Your task to perform on an android device: delete location history Image 0: 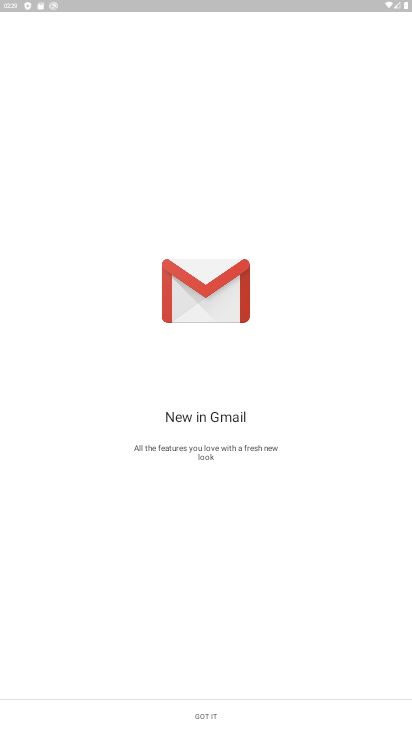
Step 0: press home button
Your task to perform on an android device: delete location history Image 1: 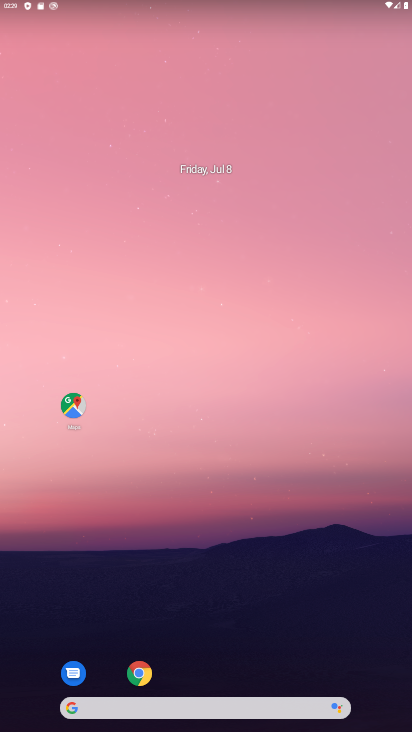
Step 1: click (78, 414)
Your task to perform on an android device: delete location history Image 2: 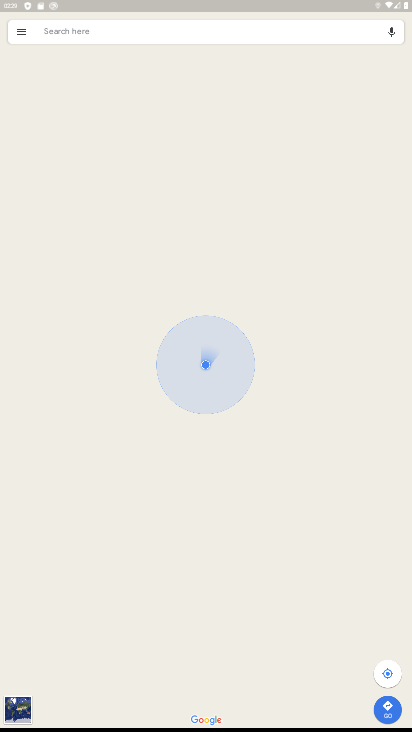
Step 2: click (14, 30)
Your task to perform on an android device: delete location history Image 3: 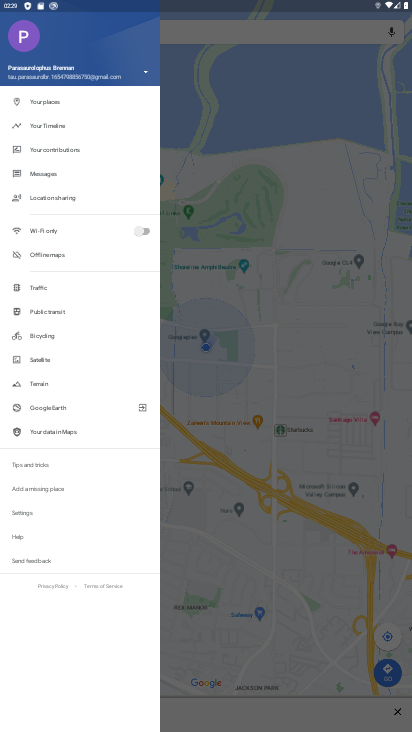
Step 3: click (51, 131)
Your task to perform on an android device: delete location history Image 4: 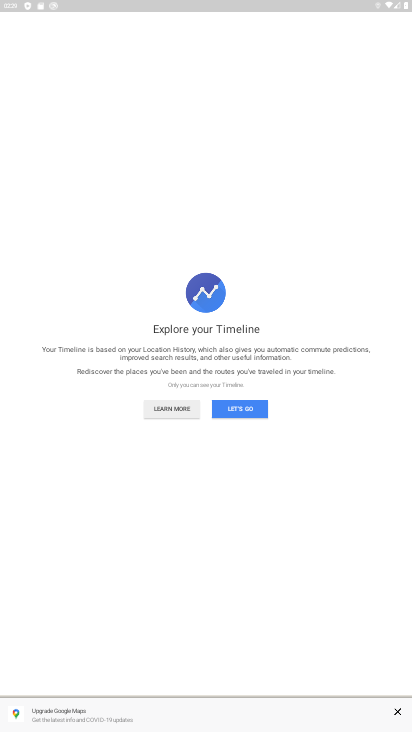
Step 4: click (228, 420)
Your task to perform on an android device: delete location history Image 5: 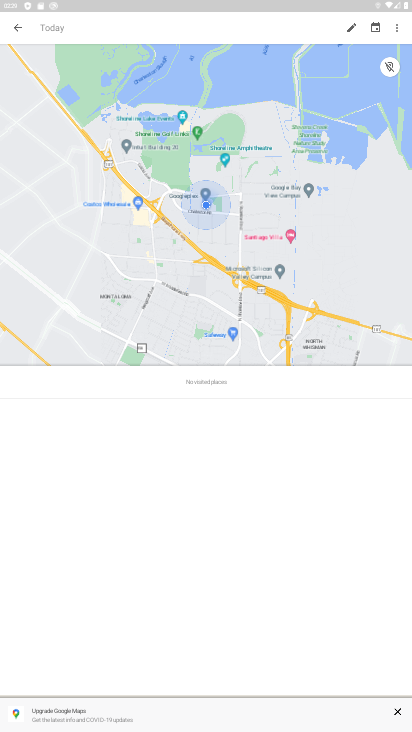
Step 5: click (394, 30)
Your task to perform on an android device: delete location history Image 6: 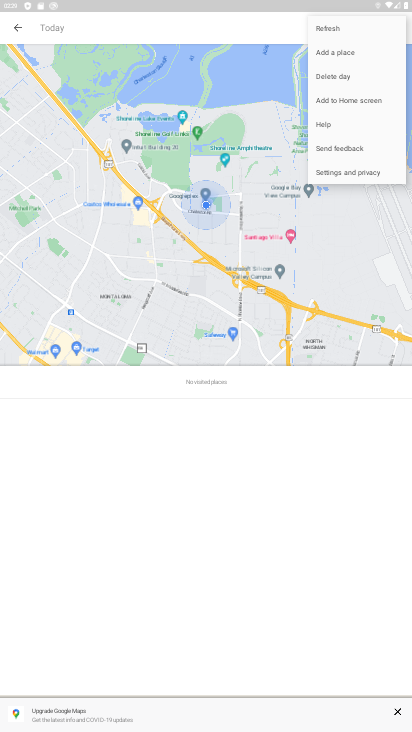
Step 6: click (322, 178)
Your task to perform on an android device: delete location history Image 7: 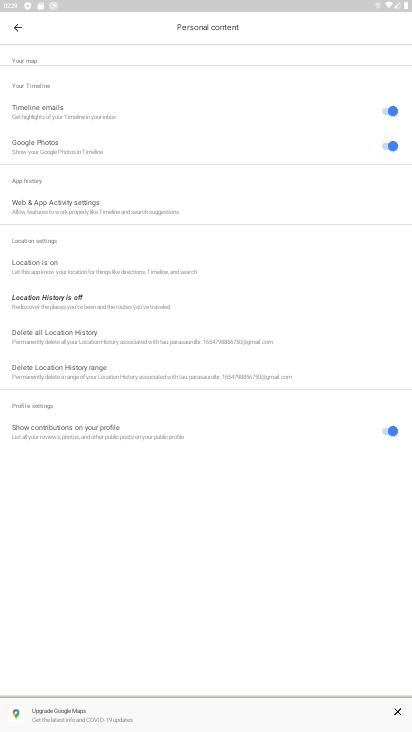
Step 7: click (34, 339)
Your task to perform on an android device: delete location history Image 8: 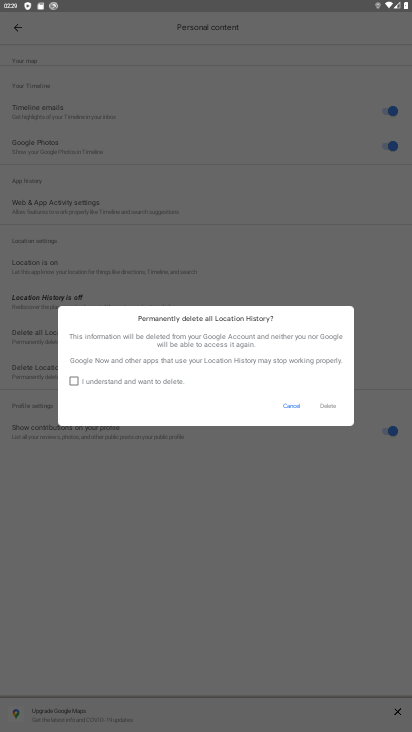
Step 8: click (82, 395)
Your task to perform on an android device: delete location history Image 9: 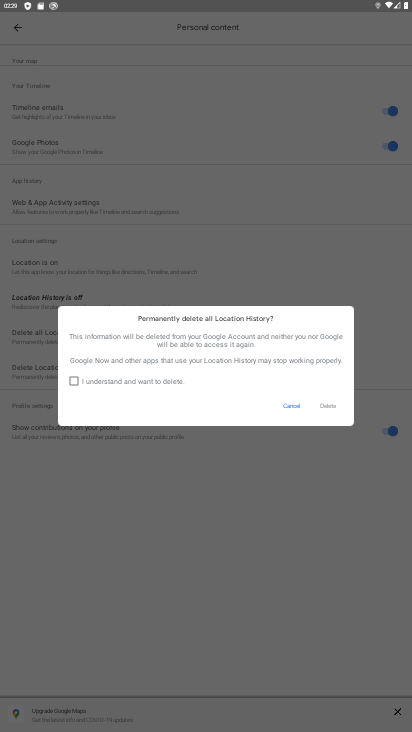
Step 9: click (73, 380)
Your task to perform on an android device: delete location history Image 10: 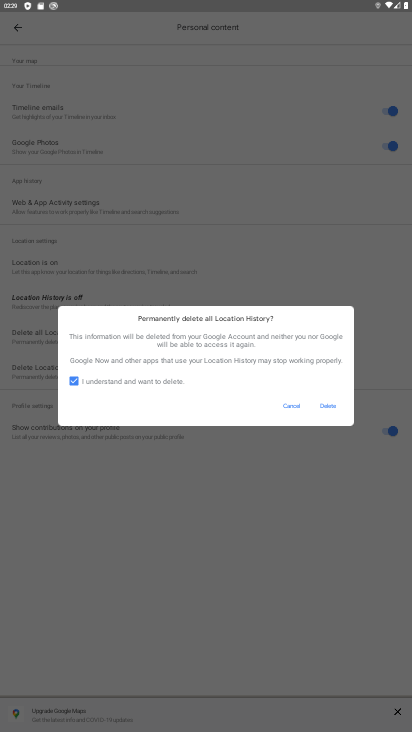
Step 10: click (318, 406)
Your task to perform on an android device: delete location history Image 11: 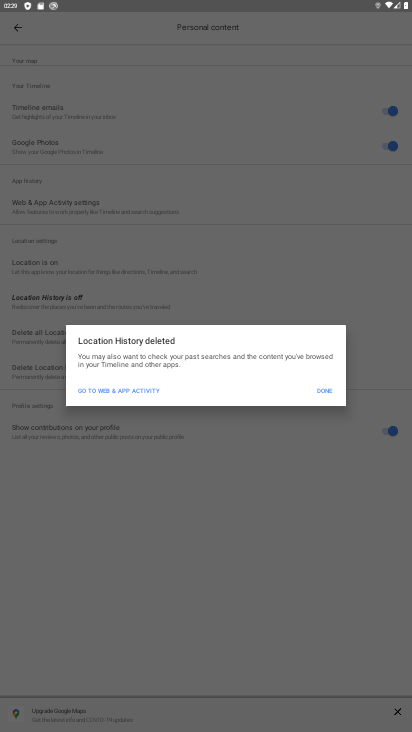
Step 11: task complete